Your task to perform on an android device: turn on translation in the chrome app Image 0: 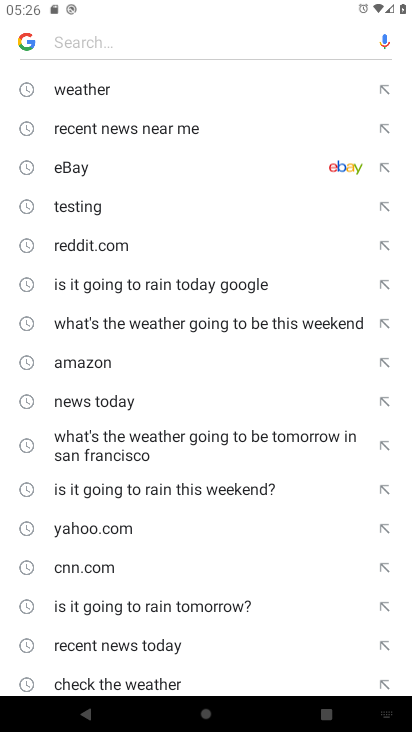
Step 0: task complete